Your task to perform on an android device: Clear the shopping cart on newegg. Search for "macbook" on newegg, select the first entry, and add it to the cart. Image 0: 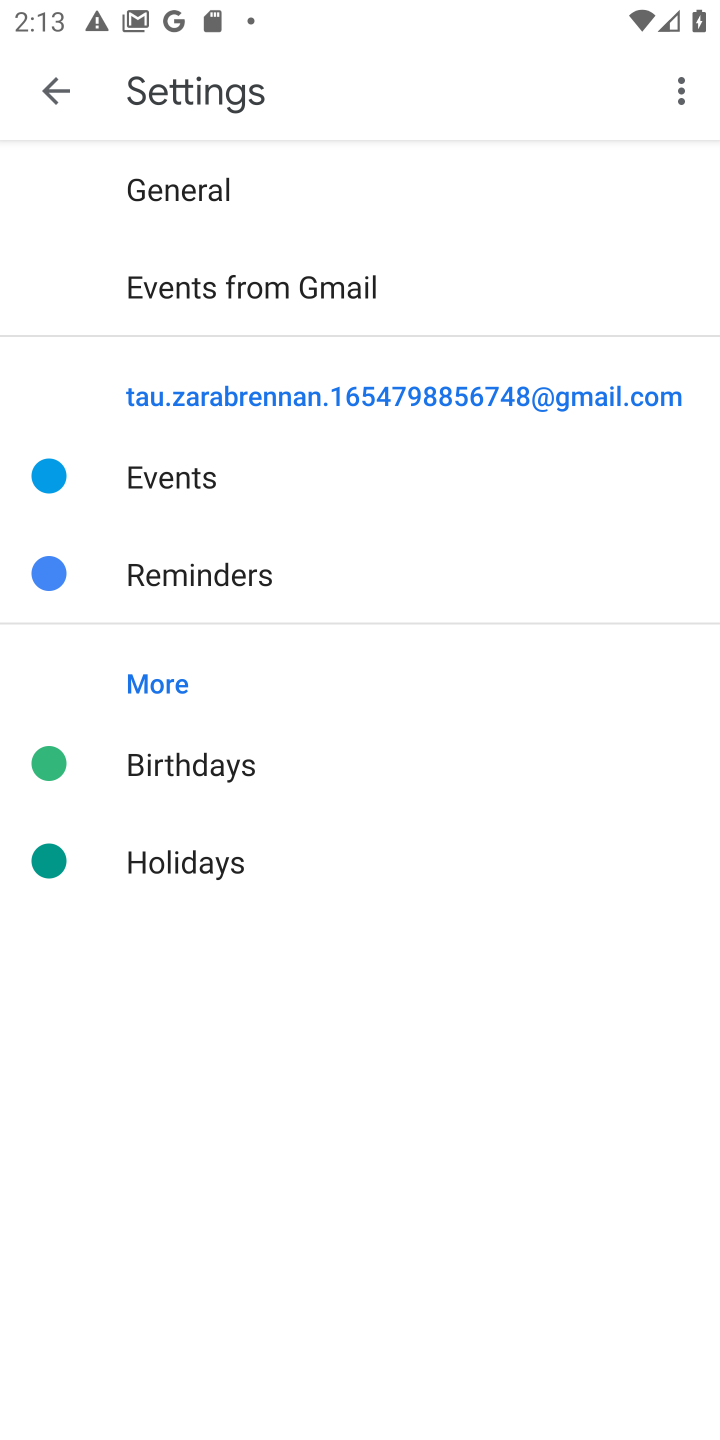
Step 0: press home button
Your task to perform on an android device: Clear the shopping cart on newegg. Search for "macbook" on newegg, select the first entry, and add it to the cart. Image 1: 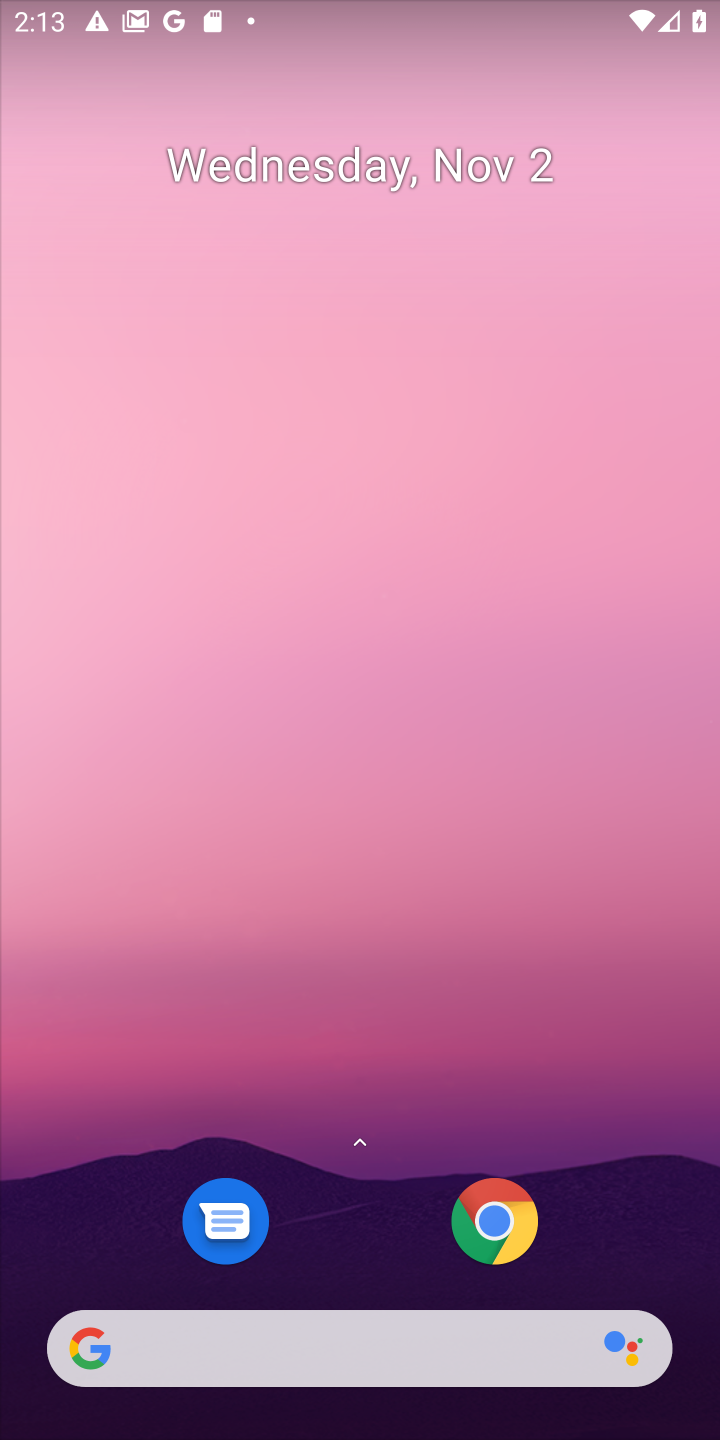
Step 1: click (352, 1322)
Your task to perform on an android device: Clear the shopping cart on newegg. Search for "macbook" on newegg, select the first entry, and add it to the cart. Image 2: 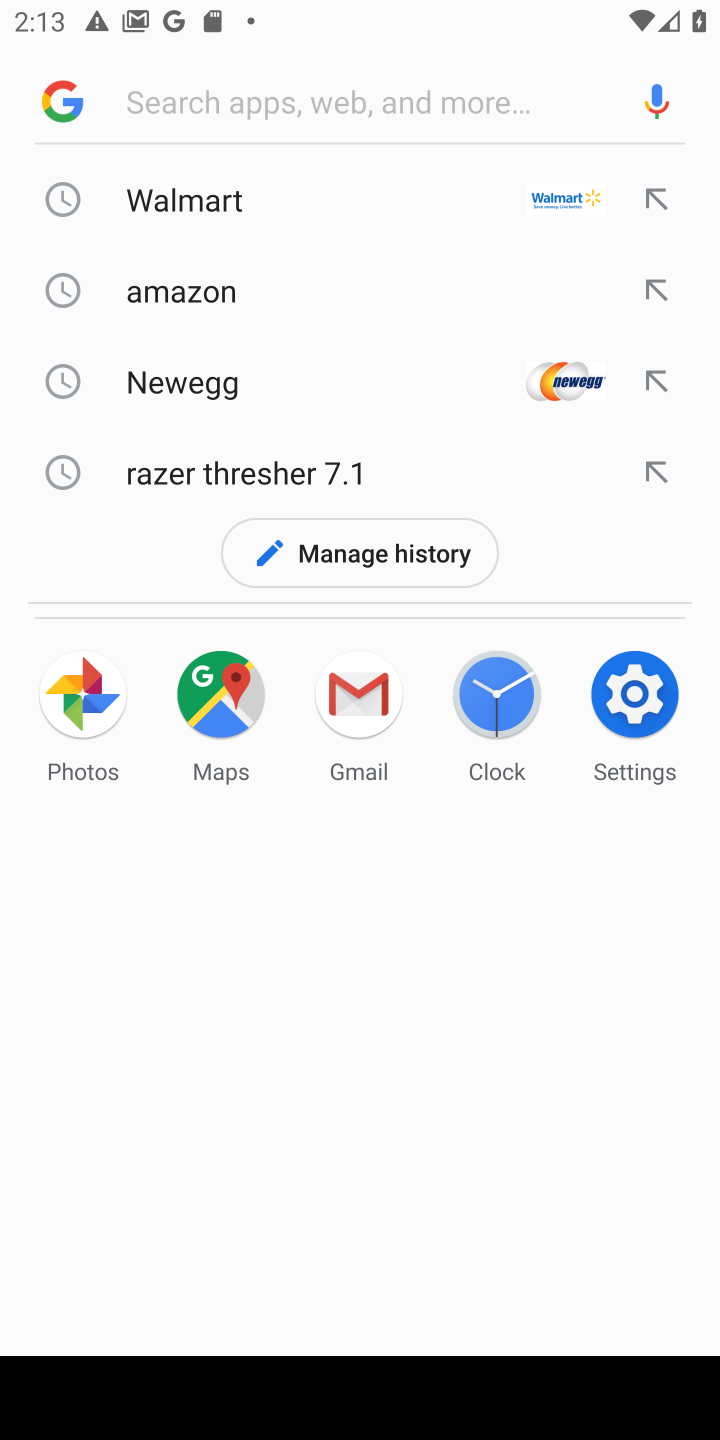
Step 2: click (209, 391)
Your task to perform on an android device: Clear the shopping cart on newegg. Search for "macbook" on newegg, select the first entry, and add it to the cart. Image 3: 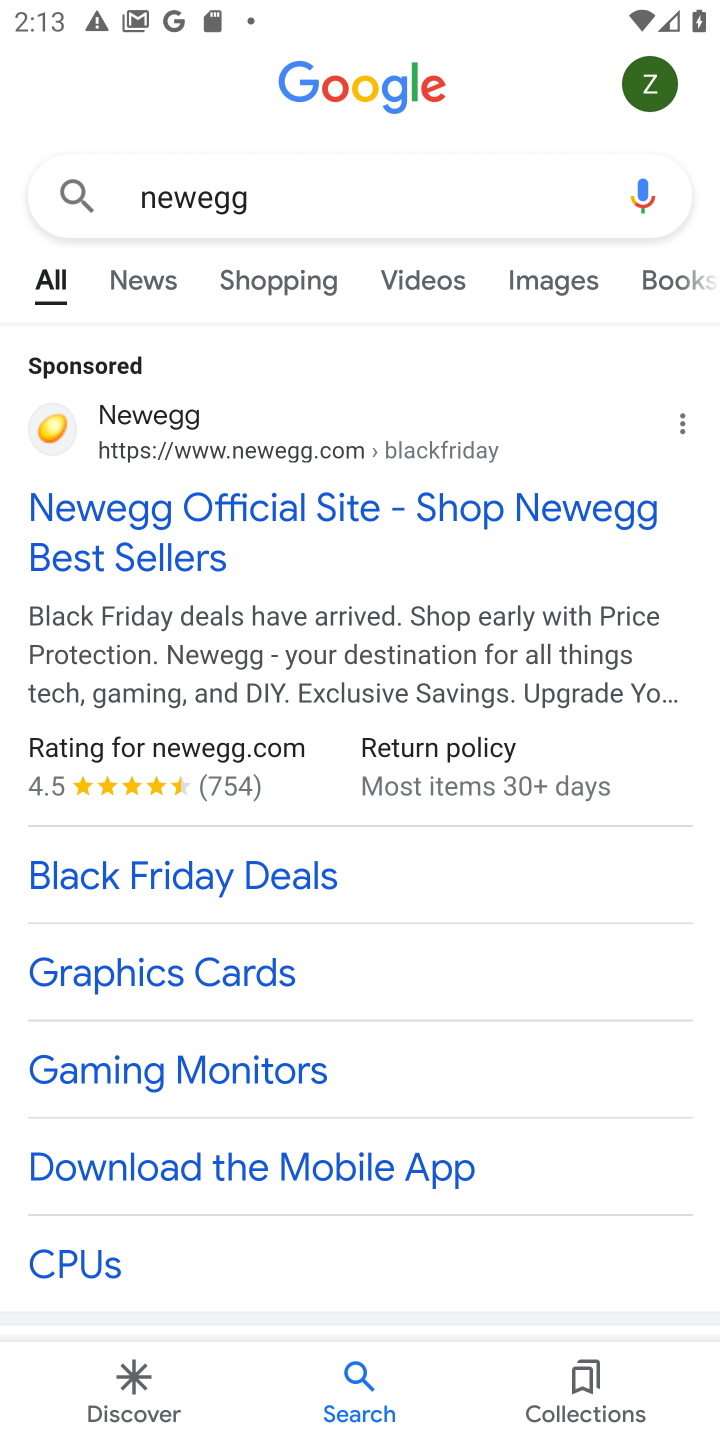
Step 3: click (265, 505)
Your task to perform on an android device: Clear the shopping cart on newegg. Search for "macbook" on newegg, select the first entry, and add it to the cart. Image 4: 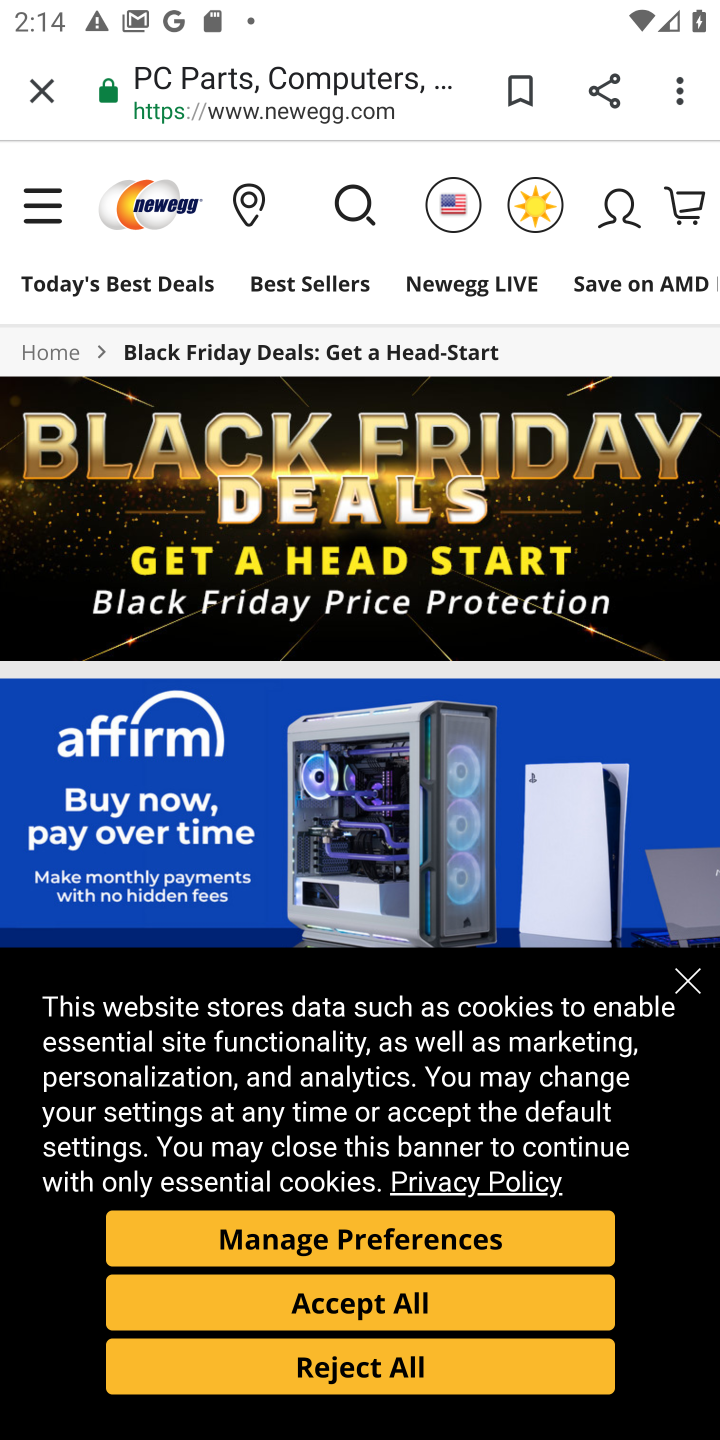
Step 4: click (353, 214)
Your task to perform on an android device: Clear the shopping cart on newegg. Search for "macbook" on newegg, select the first entry, and add it to the cart. Image 5: 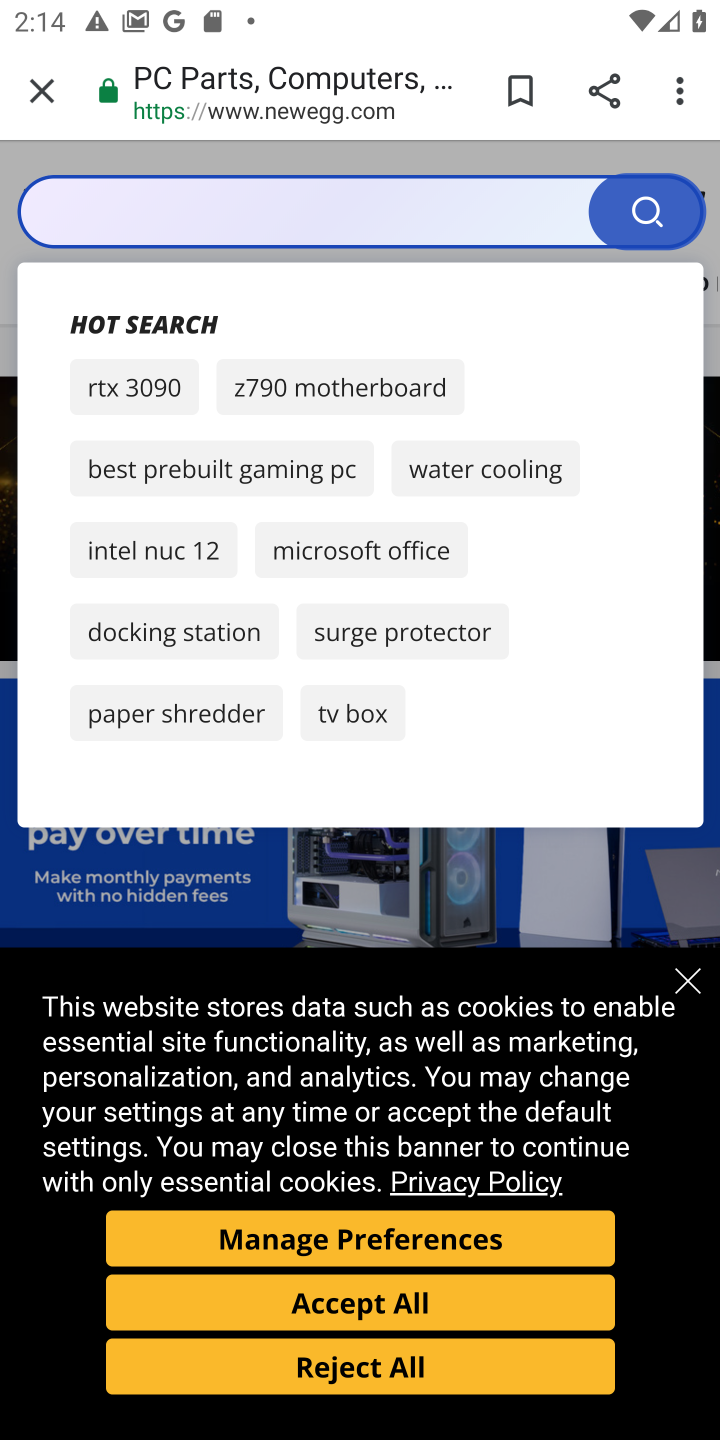
Step 5: type "macbook "
Your task to perform on an android device: Clear the shopping cart on newegg. Search for "macbook" on newegg, select the first entry, and add it to the cart. Image 6: 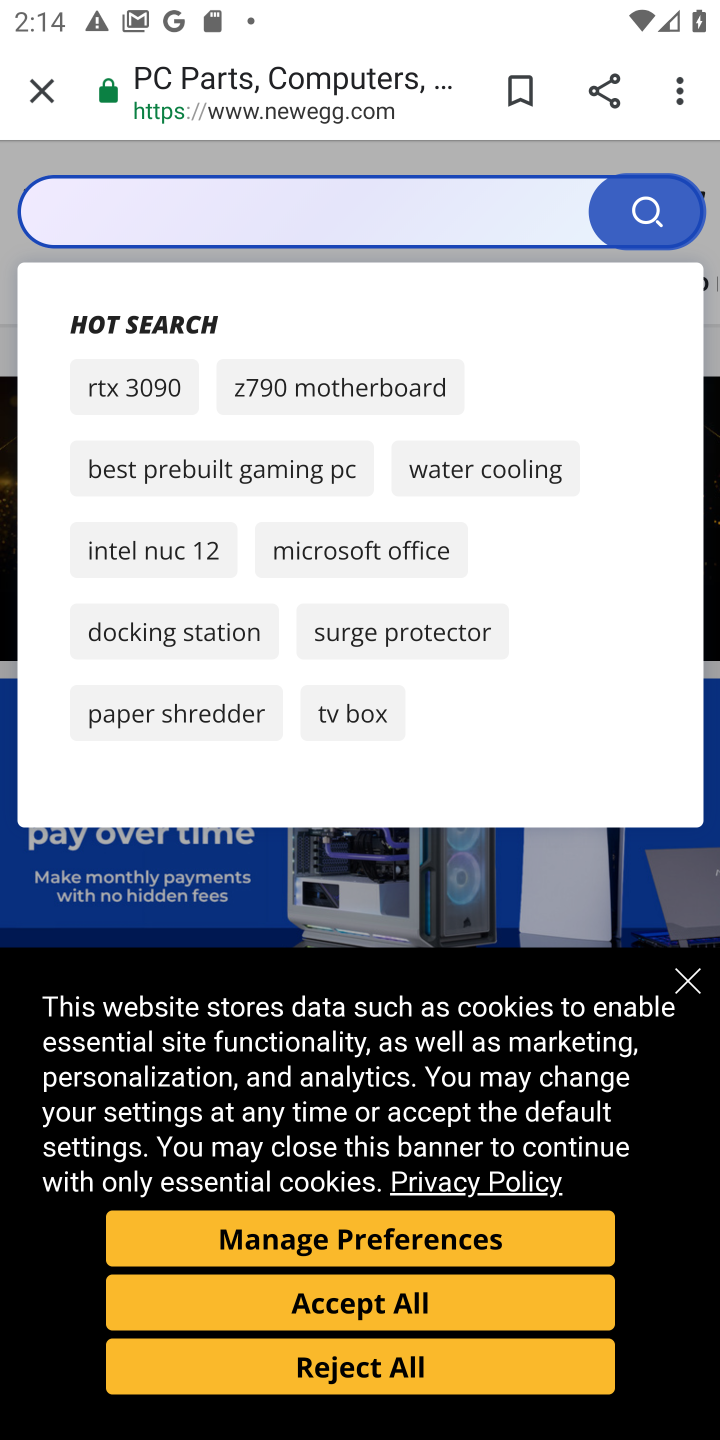
Step 6: click (335, 209)
Your task to perform on an android device: Clear the shopping cart on newegg. Search for "macbook" on newegg, select the first entry, and add it to the cart. Image 7: 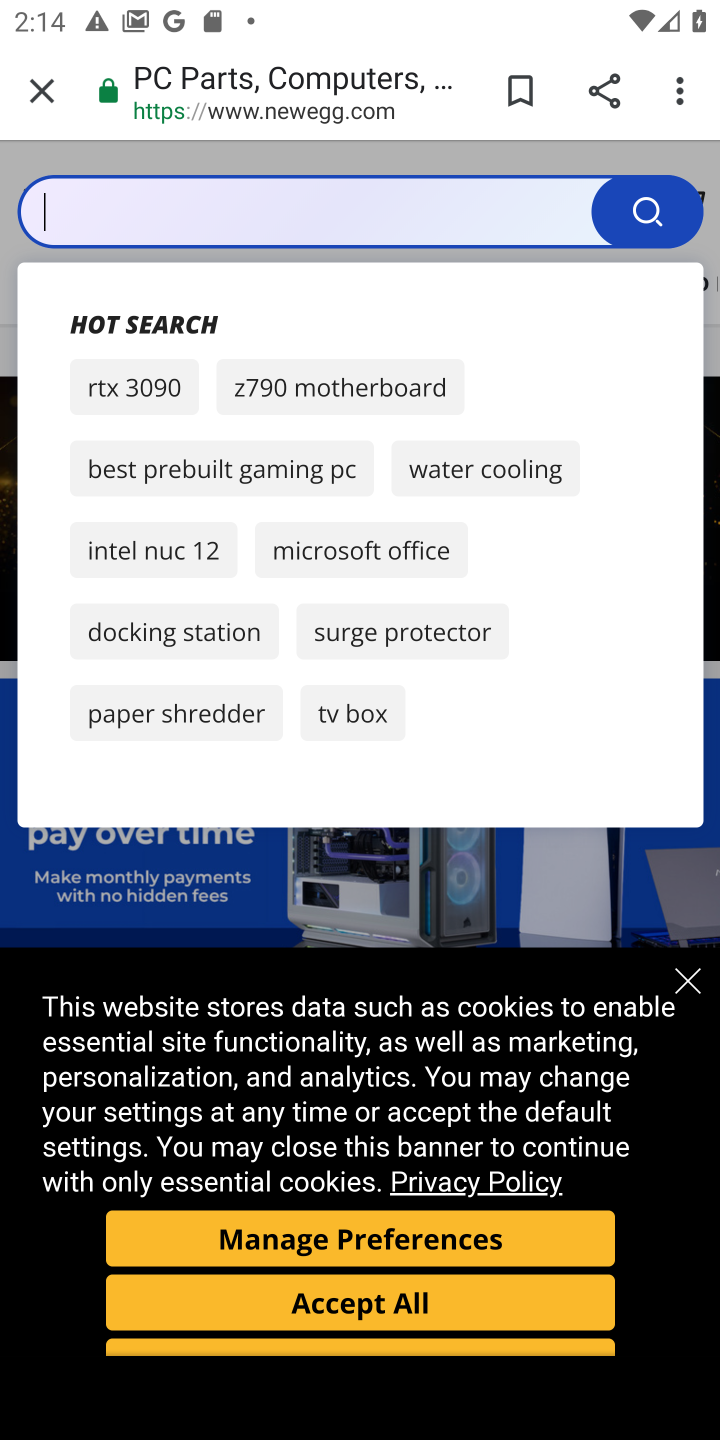
Step 7: click (335, 209)
Your task to perform on an android device: Clear the shopping cart on newegg. Search for "macbook" on newegg, select the first entry, and add it to the cart. Image 8: 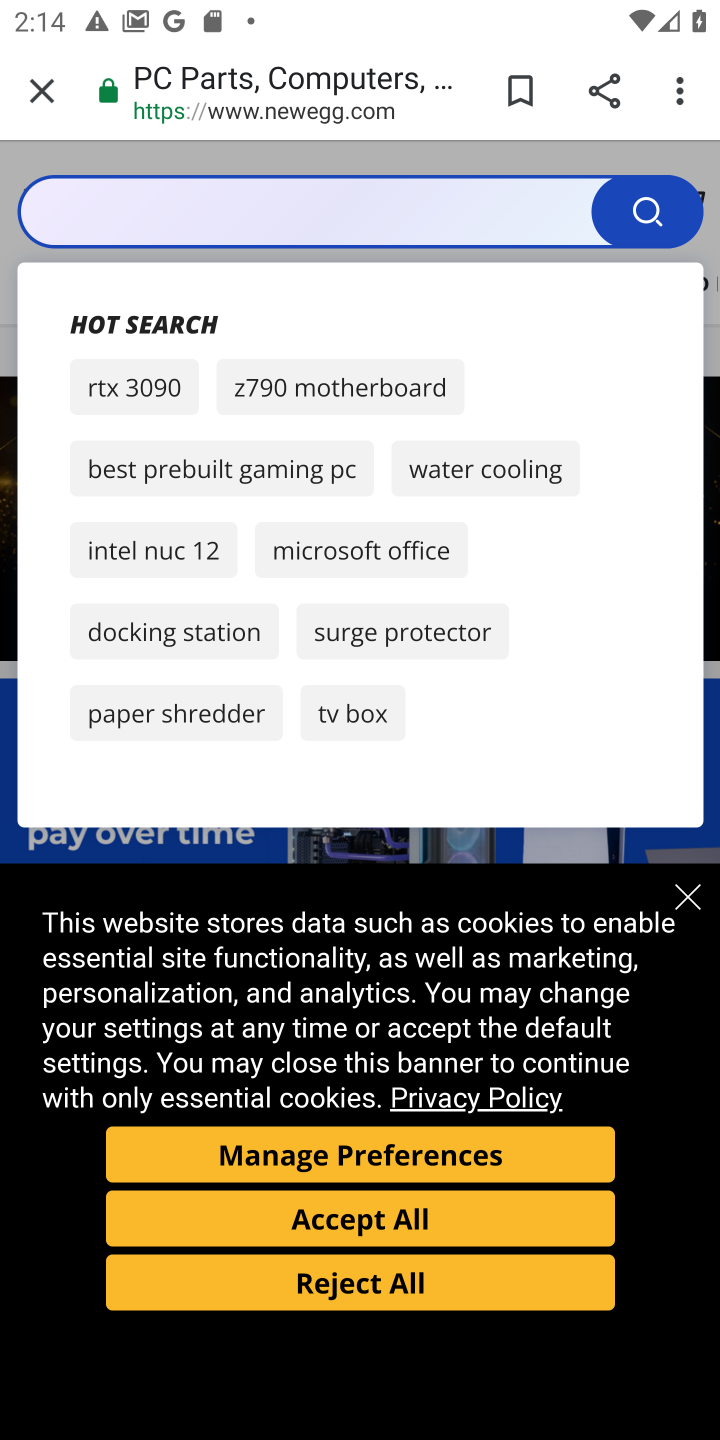
Step 8: type "macbook"
Your task to perform on an android device: Clear the shopping cart on newegg. Search for "macbook" on newegg, select the first entry, and add it to the cart. Image 9: 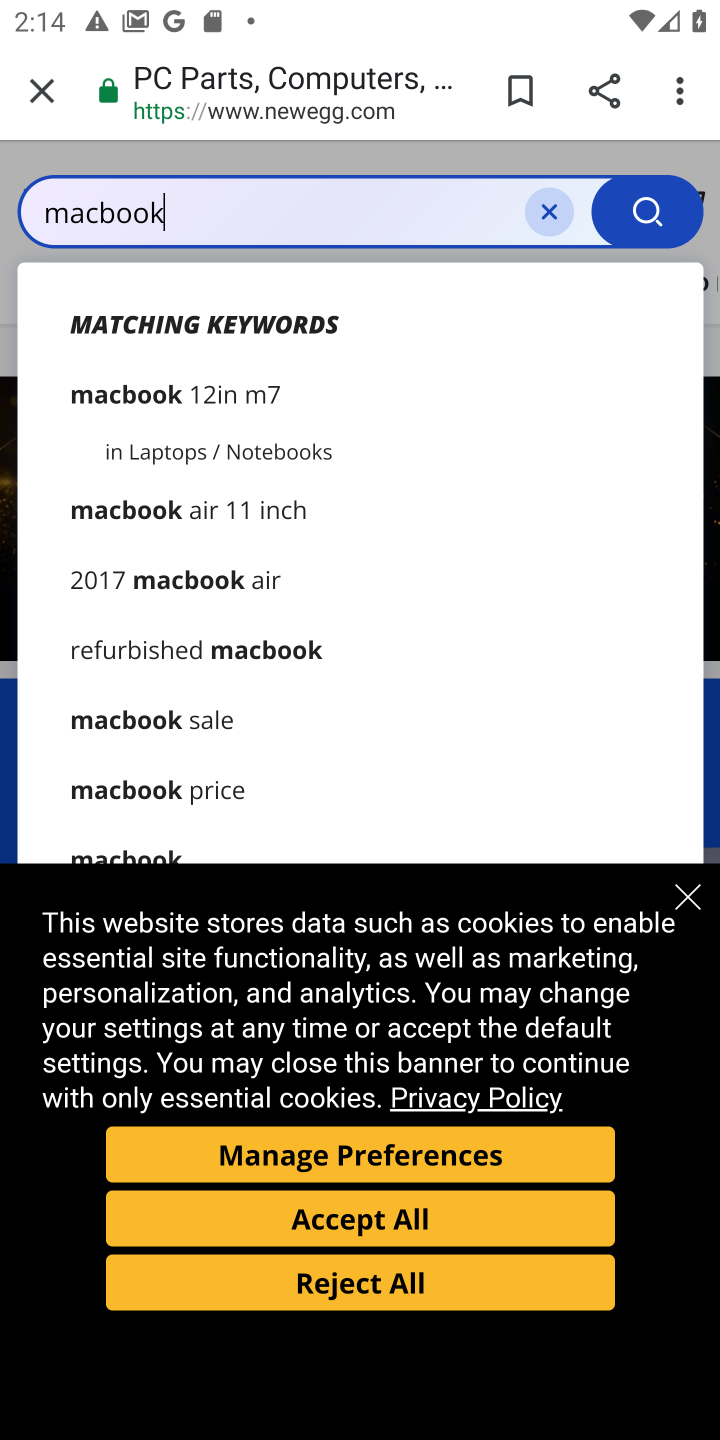
Step 9: click (634, 205)
Your task to perform on an android device: Clear the shopping cart on newegg. Search for "macbook" on newegg, select the first entry, and add it to the cart. Image 10: 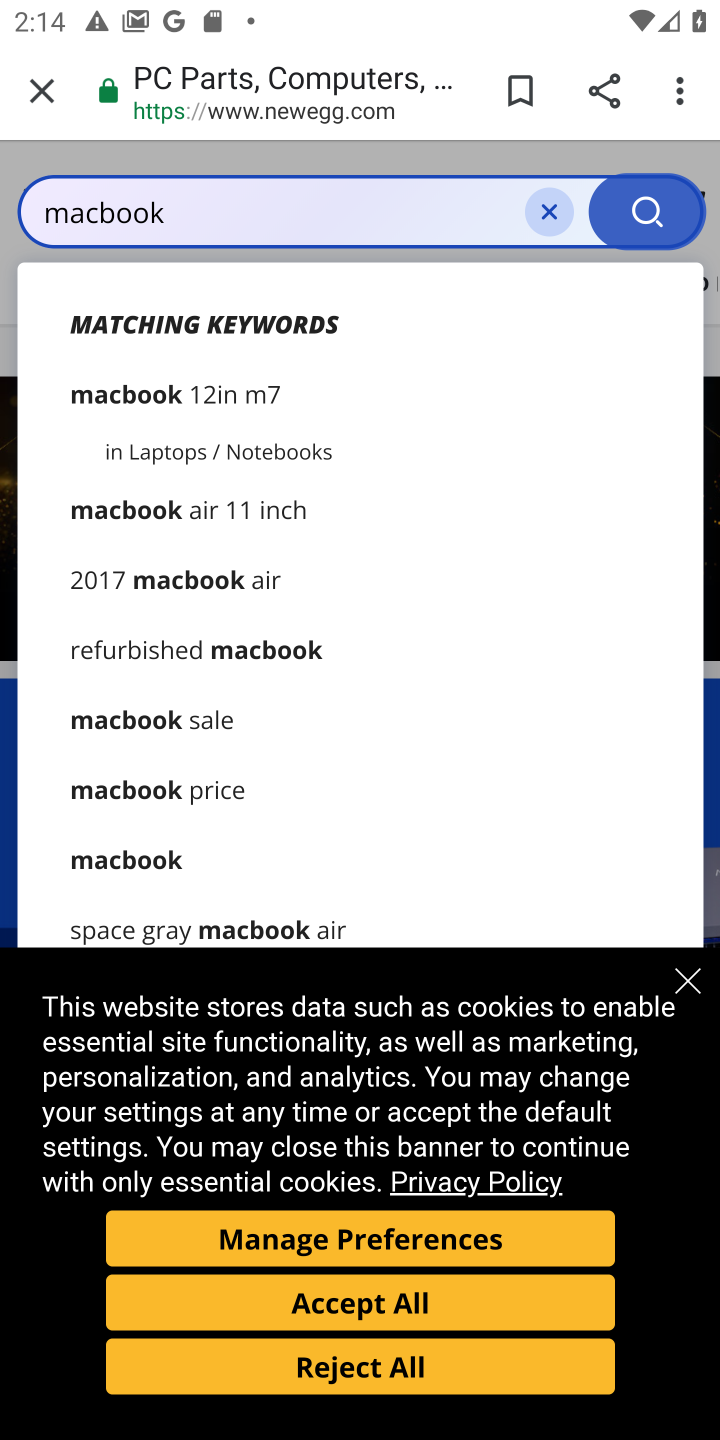
Step 10: click (259, 410)
Your task to perform on an android device: Clear the shopping cart on newegg. Search for "macbook" on newegg, select the first entry, and add it to the cart. Image 11: 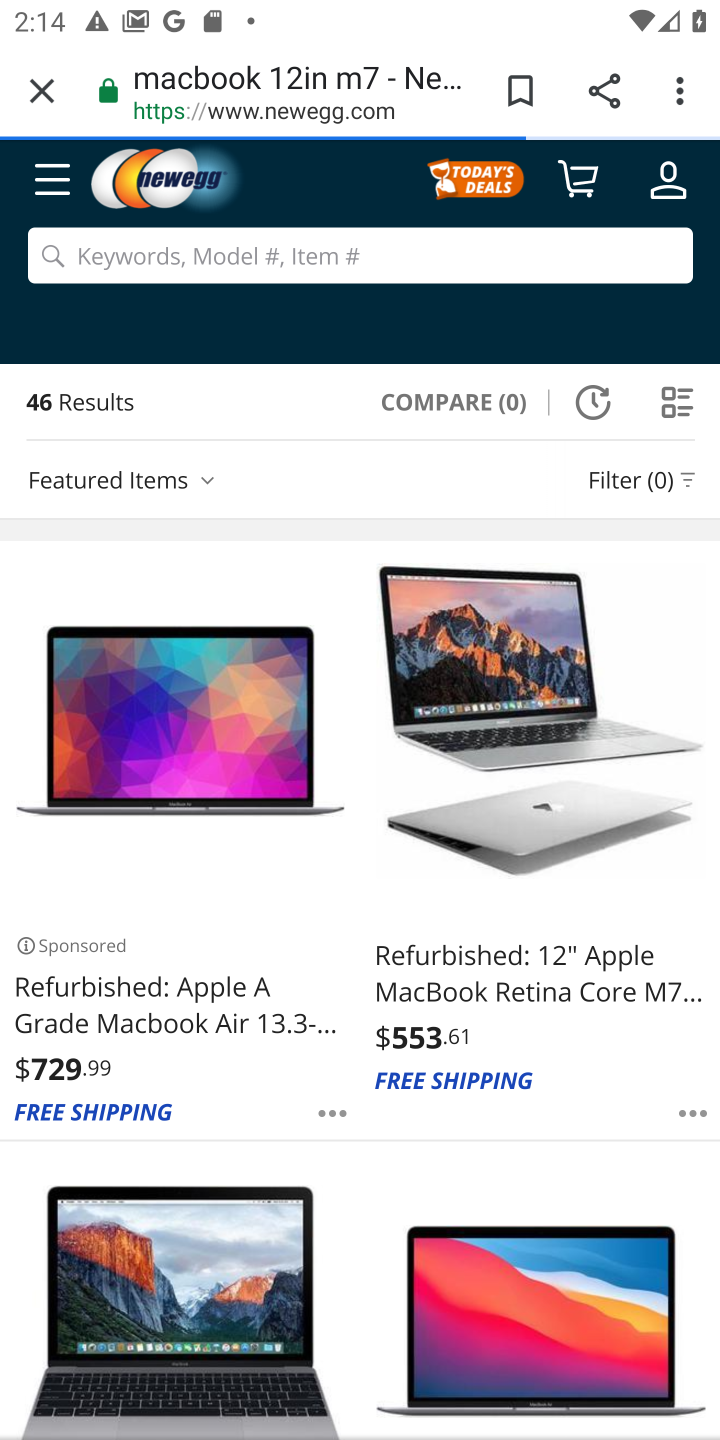
Step 11: click (294, 1104)
Your task to perform on an android device: Clear the shopping cart on newegg. Search for "macbook" on newegg, select the first entry, and add it to the cart. Image 12: 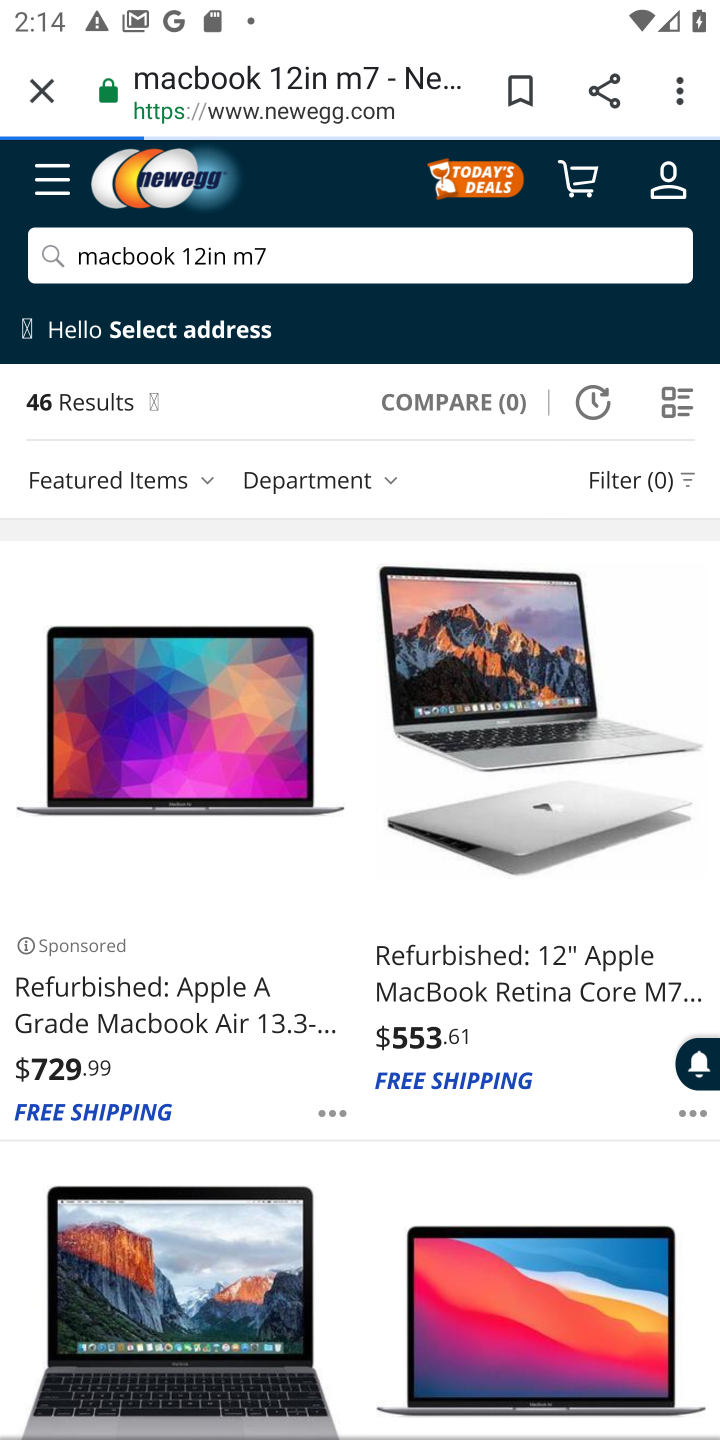
Step 12: click (136, 1091)
Your task to perform on an android device: Clear the shopping cart on newegg. Search for "macbook" on newegg, select the first entry, and add it to the cart. Image 13: 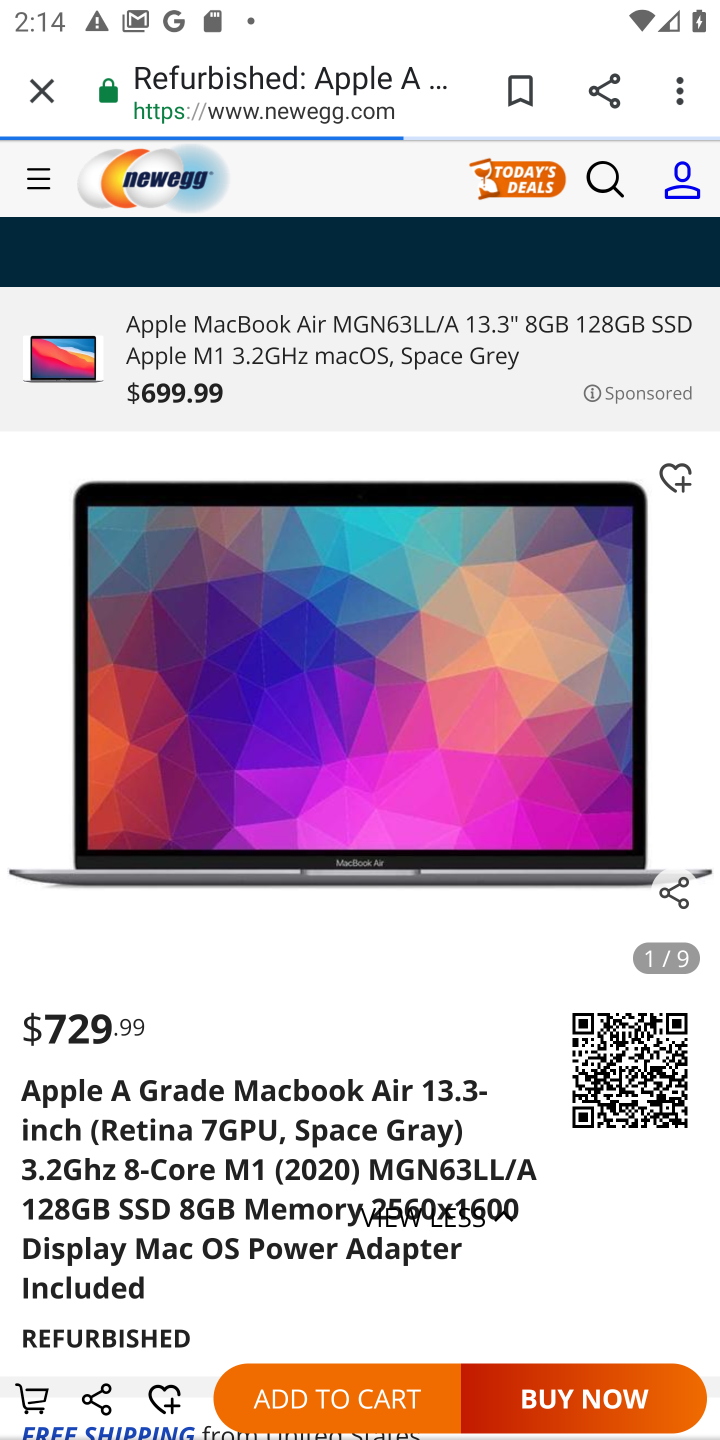
Step 13: click (349, 1297)
Your task to perform on an android device: Clear the shopping cart on newegg. Search for "macbook" on newegg, select the first entry, and add it to the cart. Image 14: 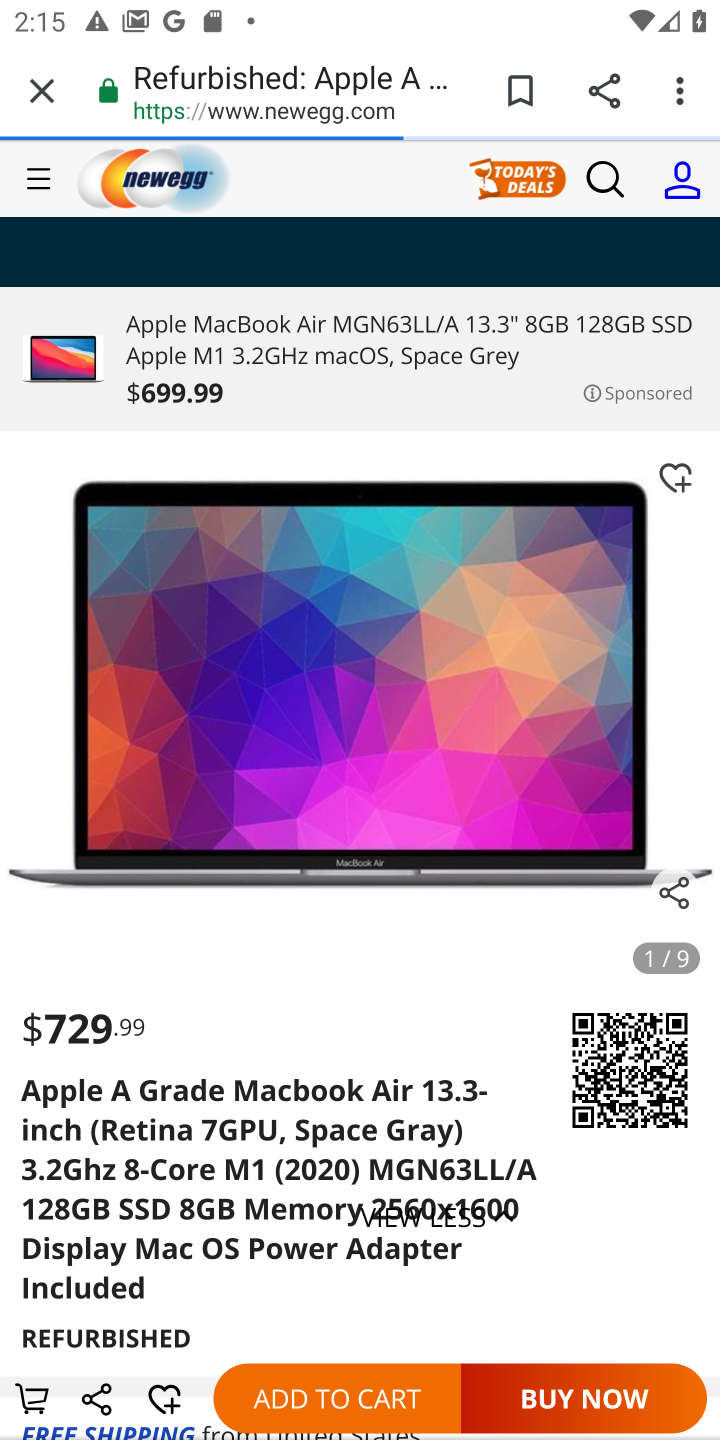
Step 14: click (386, 1388)
Your task to perform on an android device: Clear the shopping cart on newegg. Search for "macbook" on newegg, select the first entry, and add it to the cart. Image 15: 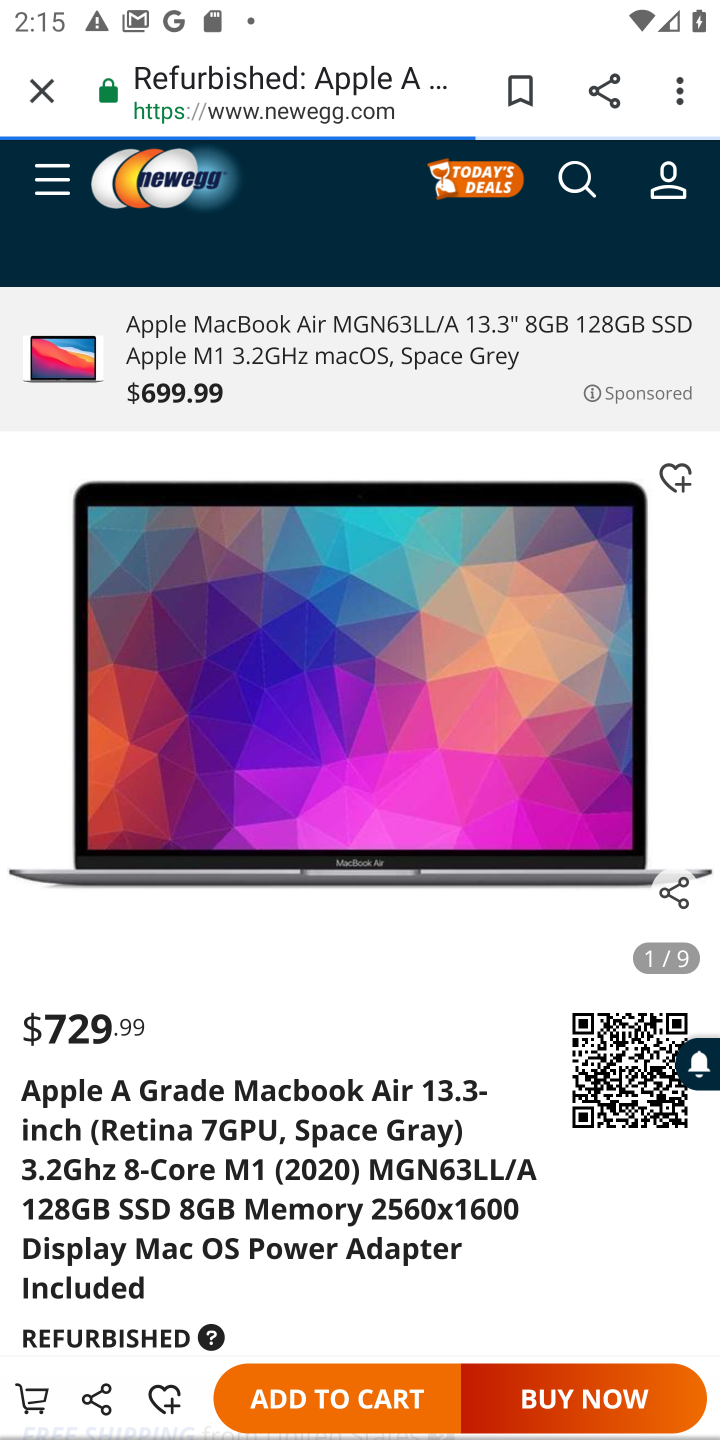
Step 15: task complete